Your task to perform on an android device: turn off smart reply in the gmail app Image 0: 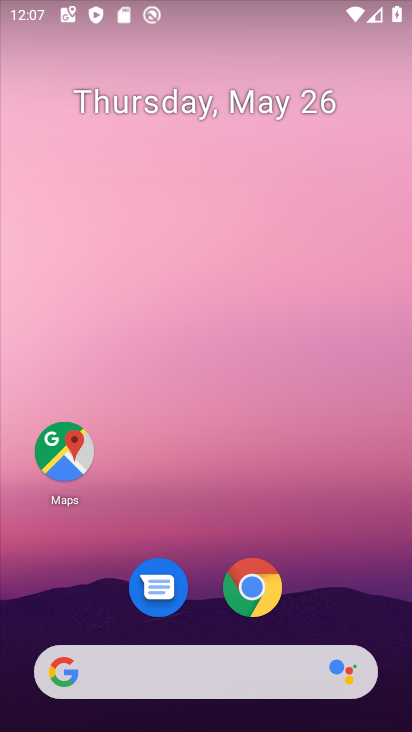
Step 0: drag from (209, 622) to (229, 92)
Your task to perform on an android device: turn off smart reply in the gmail app Image 1: 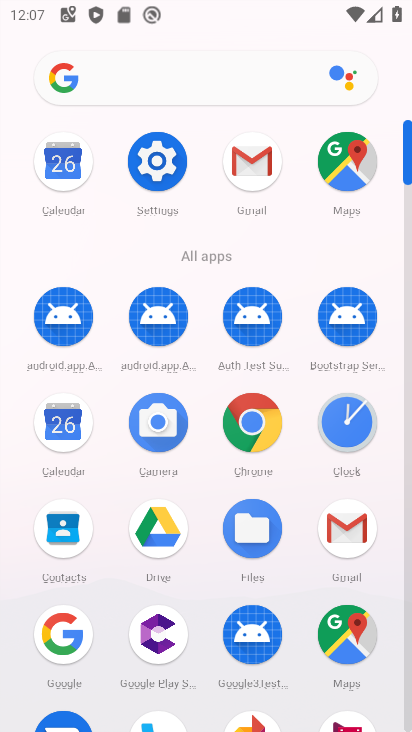
Step 1: click (248, 153)
Your task to perform on an android device: turn off smart reply in the gmail app Image 2: 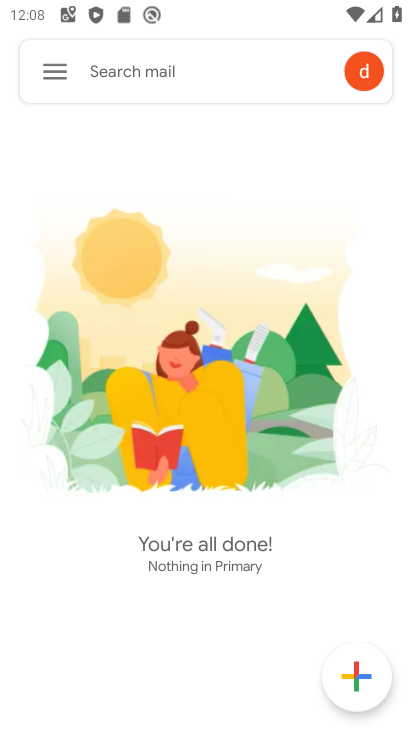
Step 2: click (42, 65)
Your task to perform on an android device: turn off smart reply in the gmail app Image 3: 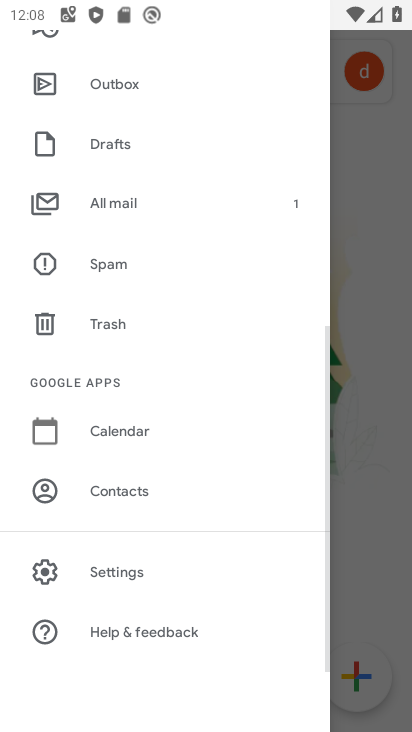
Step 3: click (150, 570)
Your task to perform on an android device: turn off smart reply in the gmail app Image 4: 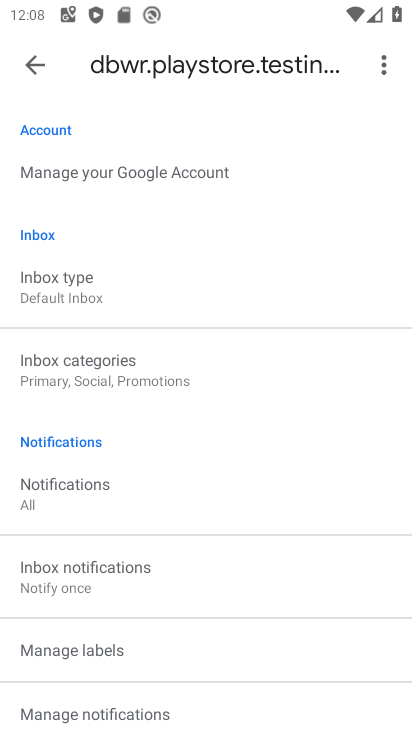
Step 4: drag from (196, 655) to (217, 79)
Your task to perform on an android device: turn off smart reply in the gmail app Image 5: 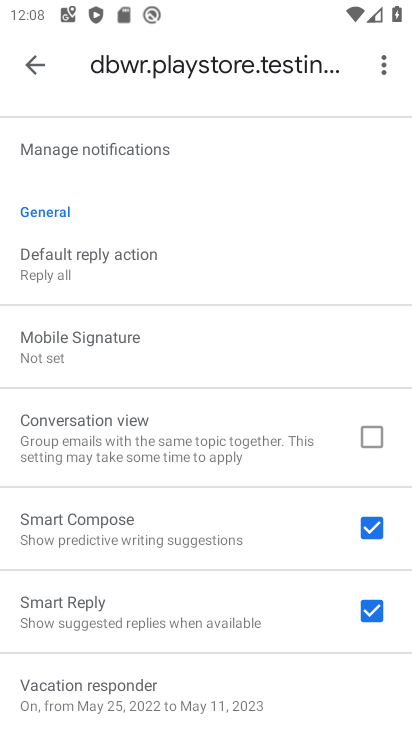
Step 5: click (375, 609)
Your task to perform on an android device: turn off smart reply in the gmail app Image 6: 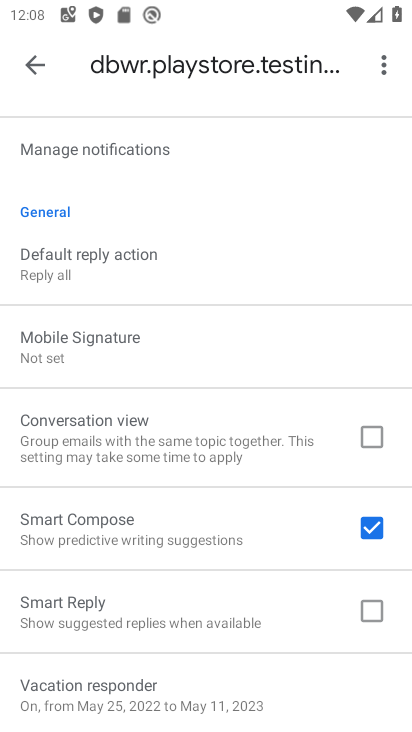
Step 6: task complete